Your task to perform on an android device: change the clock display to show seconds Image 0: 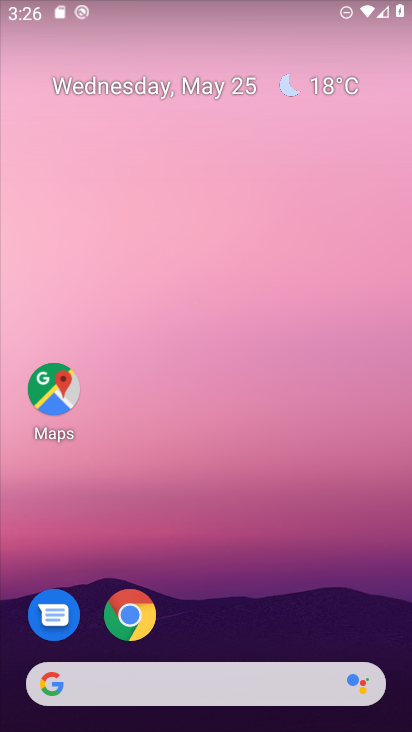
Step 0: drag from (255, 559) to (343, 20)
Your task to perform on an android device: change the clock display to show seconds Image 1: 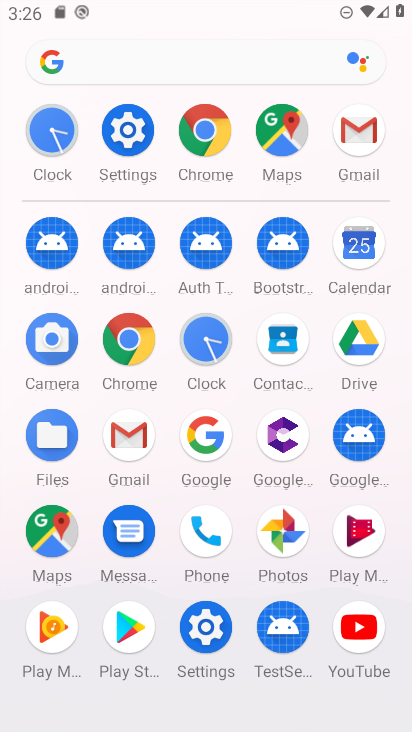
Step 1: click (50, 123)
Your task to perform on an android device: change the clock display to show seconds Image 2: 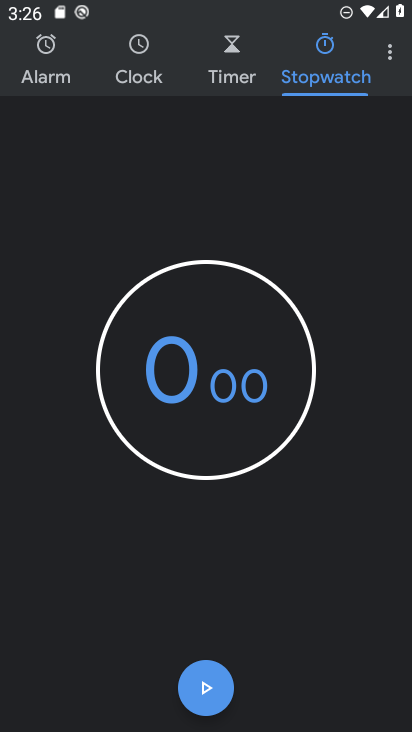
Step 2: click (393, 46)
Your task to perform on an android device: change the clock display to show seconds Image 3: 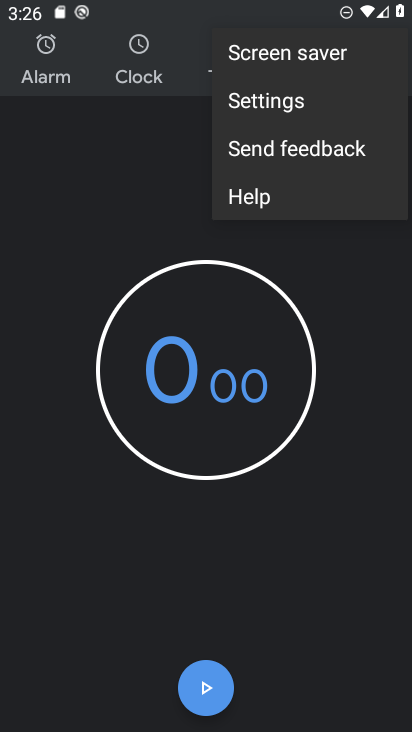
Step 3: click (339, 92)
Your task to perform on an android device: change the clock display to show seconds Image 4: 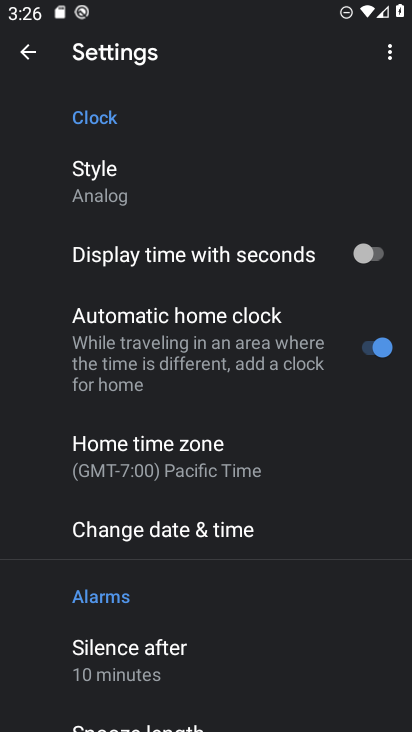
Step 4: click (375, 245)
Your task to perform on an android device: change the clock display to show seconds Image 5: 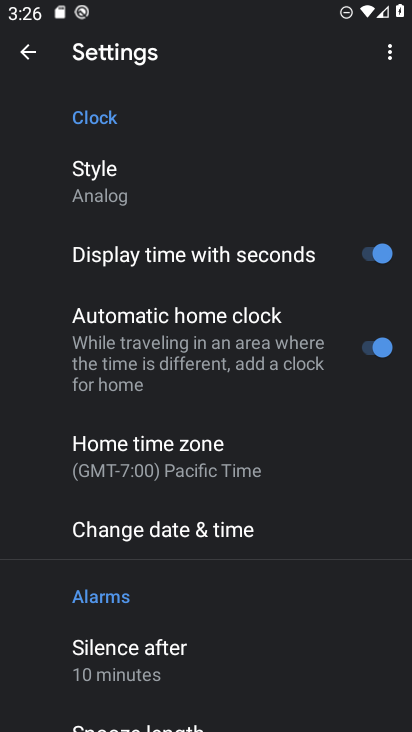
Step 5: task complete